Your task to perform on an android device: Open my contact list Image 0: 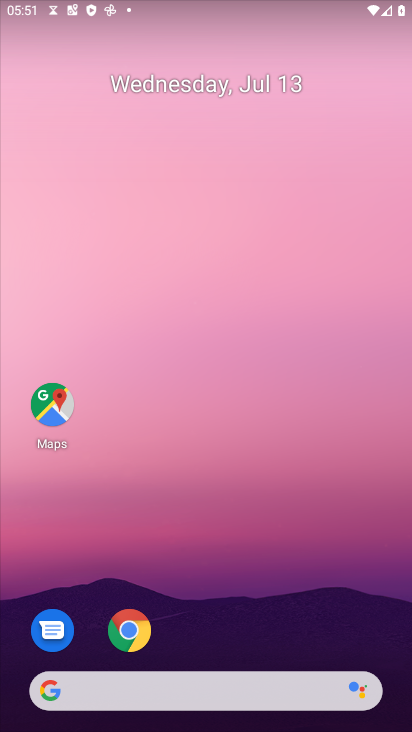
Step 0: drag from (349, 688) to (297, 131)
Your task to perform on an android device: Open my contact list Image 1: 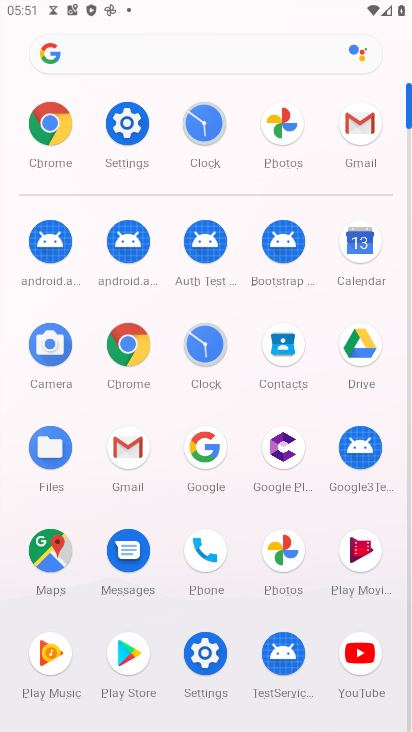
Step 1: click (282, 348)
Your task to perform on an android device: Open my contact list Image 2: 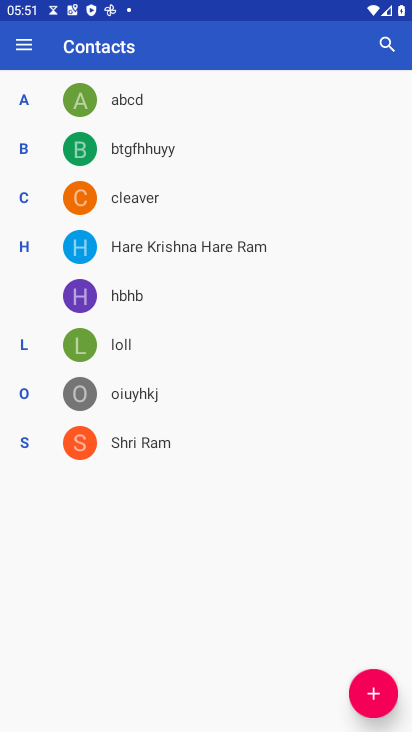
Step 2: task complete